Your task to perform on an android device: open app "Skype" Image 0: 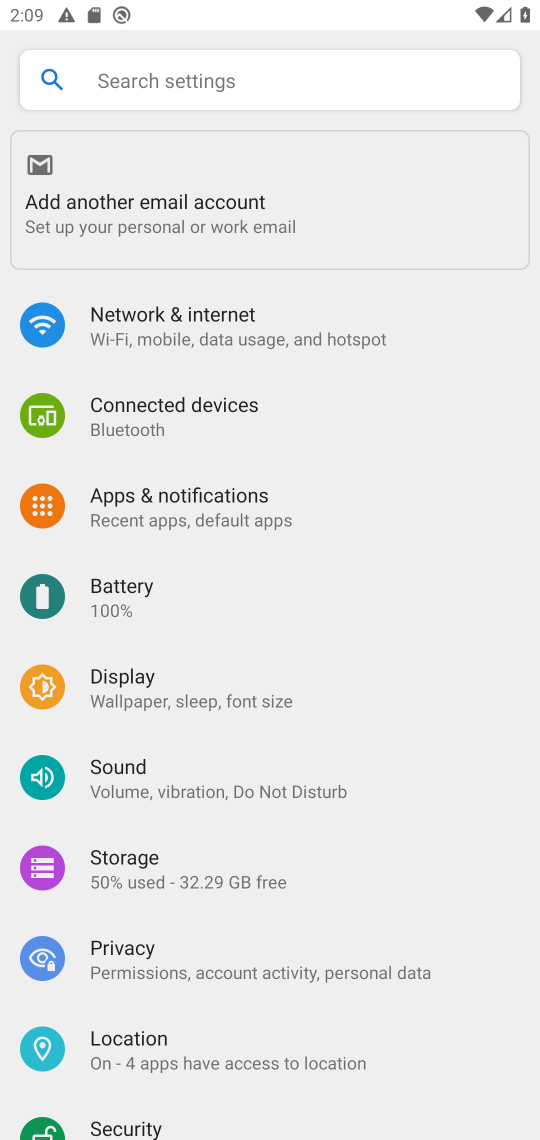
Step 0: task complete